Your task to perform on an android device: Toggle the flashlight Image 0: 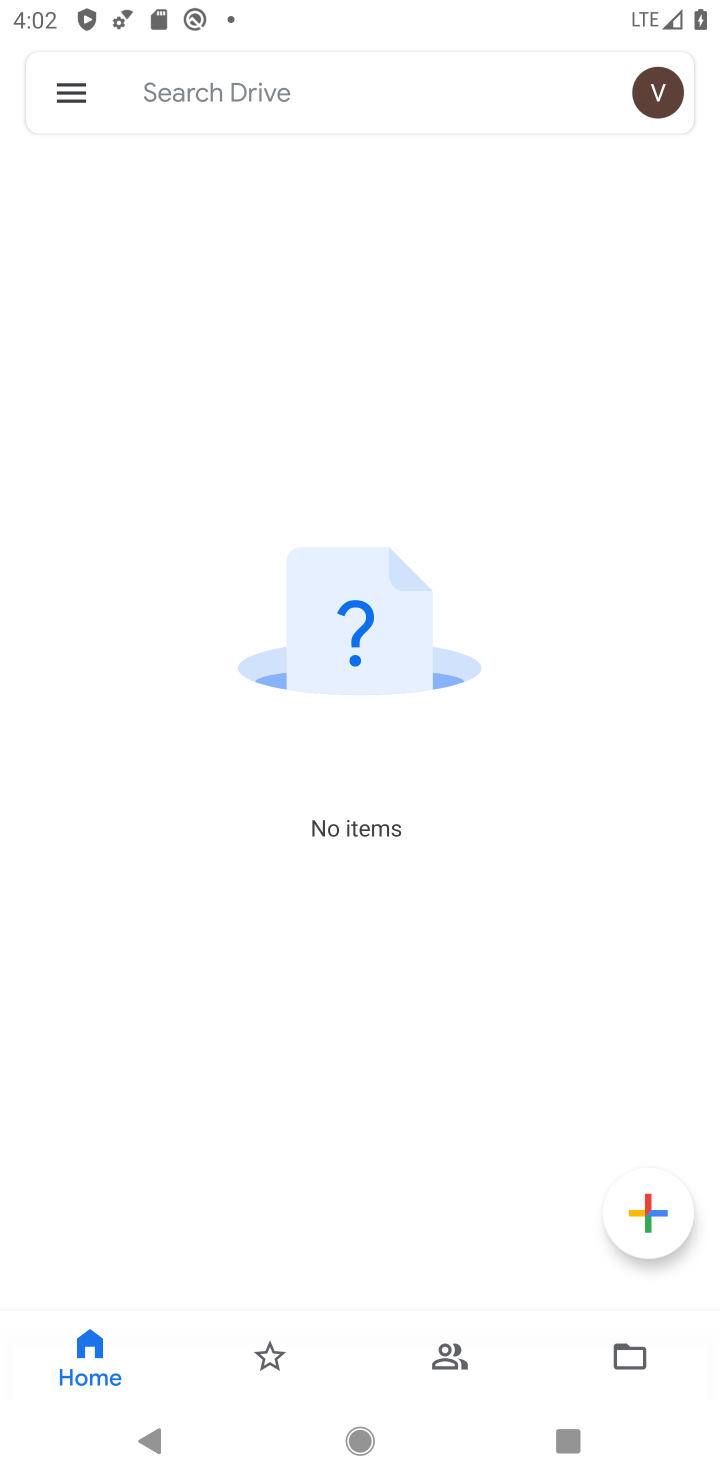
Step 0: press back button
Your task to perform on an android device: Toggle the flashlight Image 1: 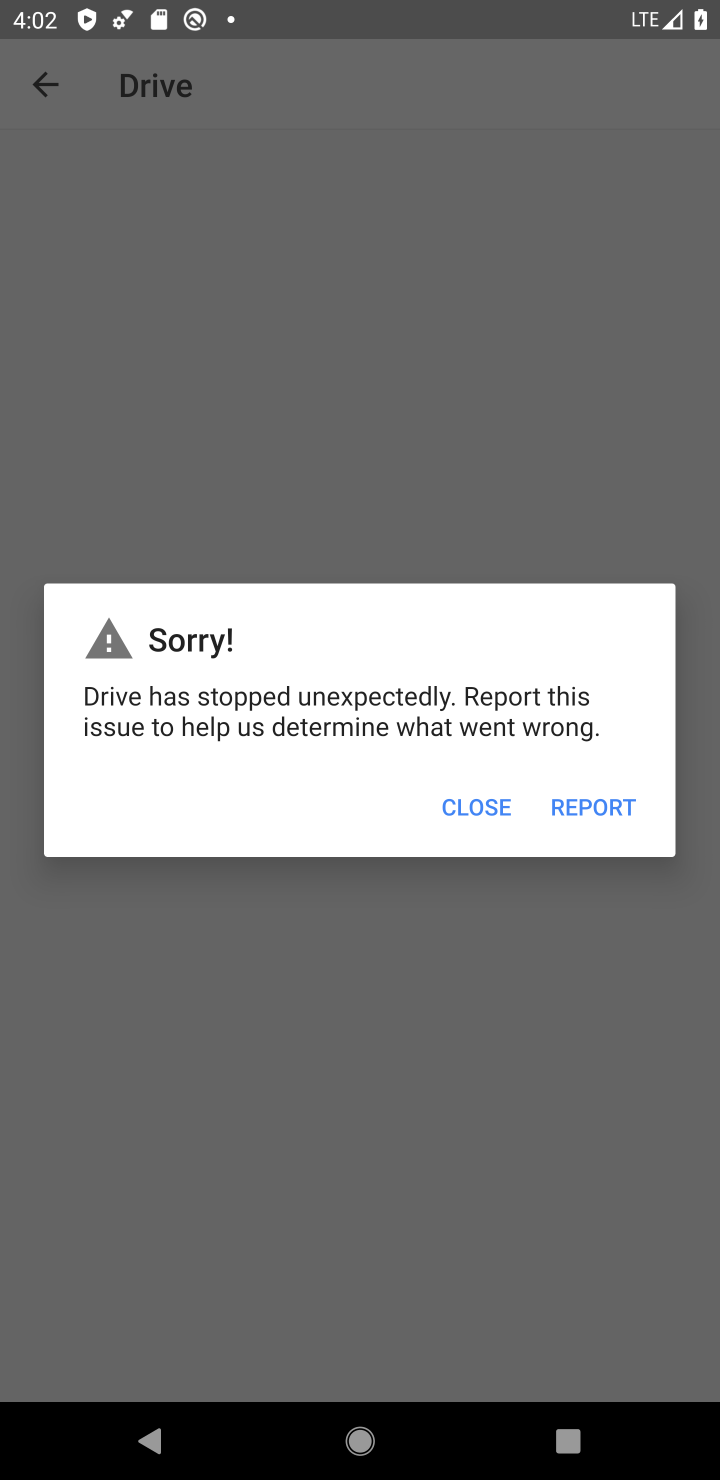
Step 1: task complete